Your task to perform on an android device: Open the Play Movies app and select the watchlist tab. Image 0: 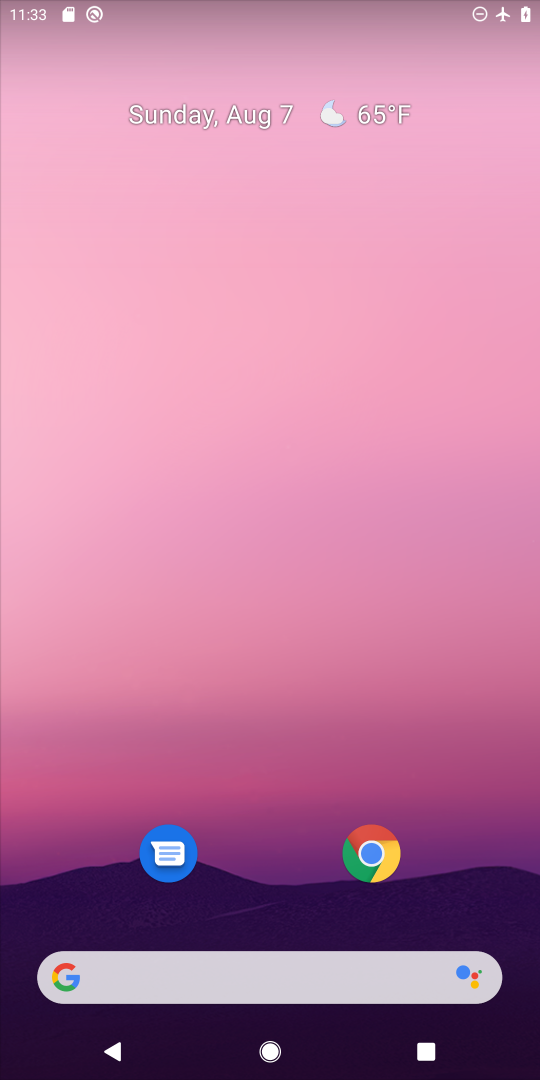
Step 0: drag from (290, 902) to (323, 58)
Your task to perform on an android device: Open the Play Movies app and select the watchlist tab. Image 1: 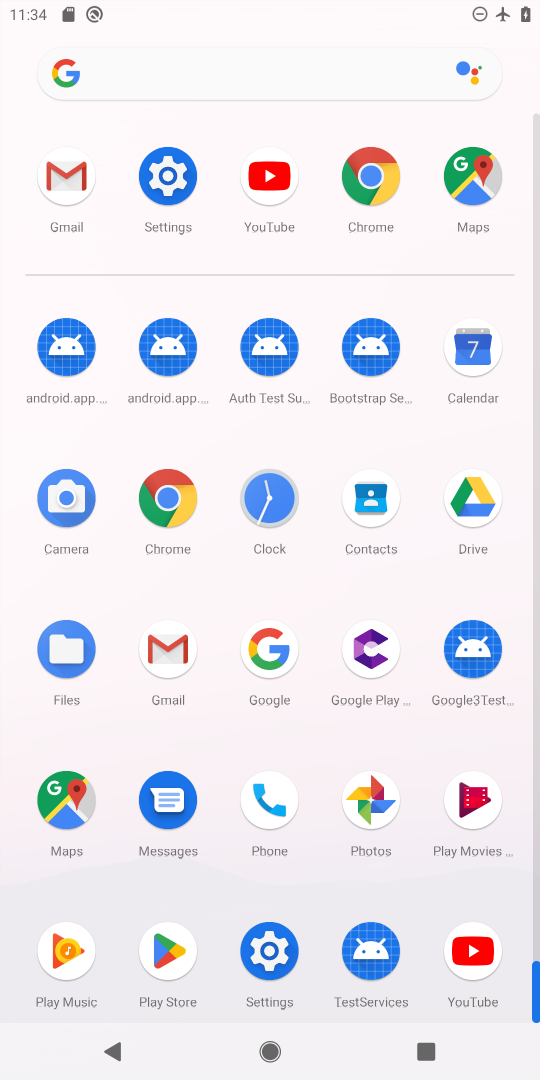
Step 1: click (490, 800)
Your task to perform on an android device: Open the Play Movies app and select the watchlist tab. Image 2: 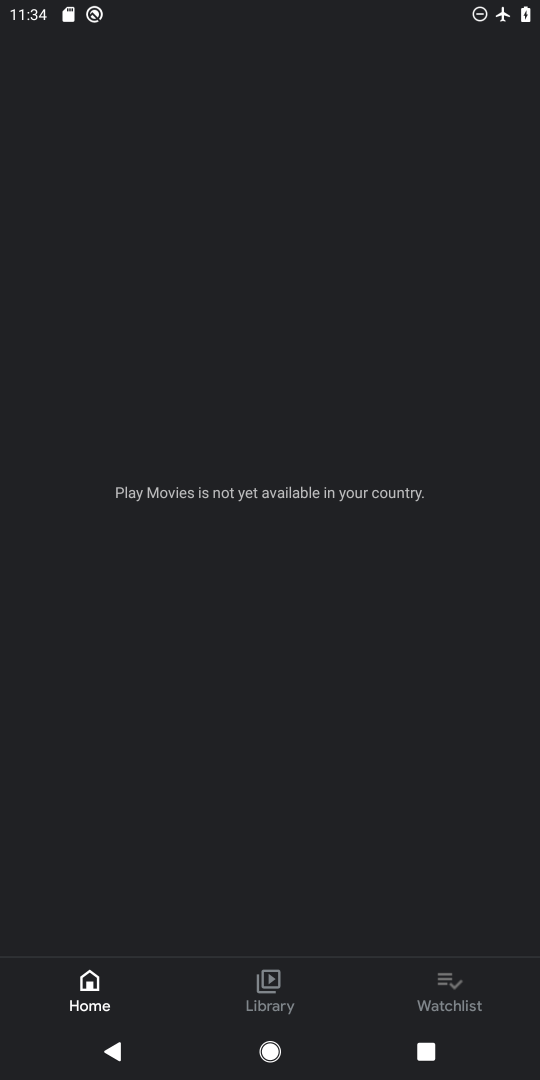
Step 2: click (452, 983)
Your task to perform on an android device: Open the Play Movies app and select the watchlist tab. Image 3: 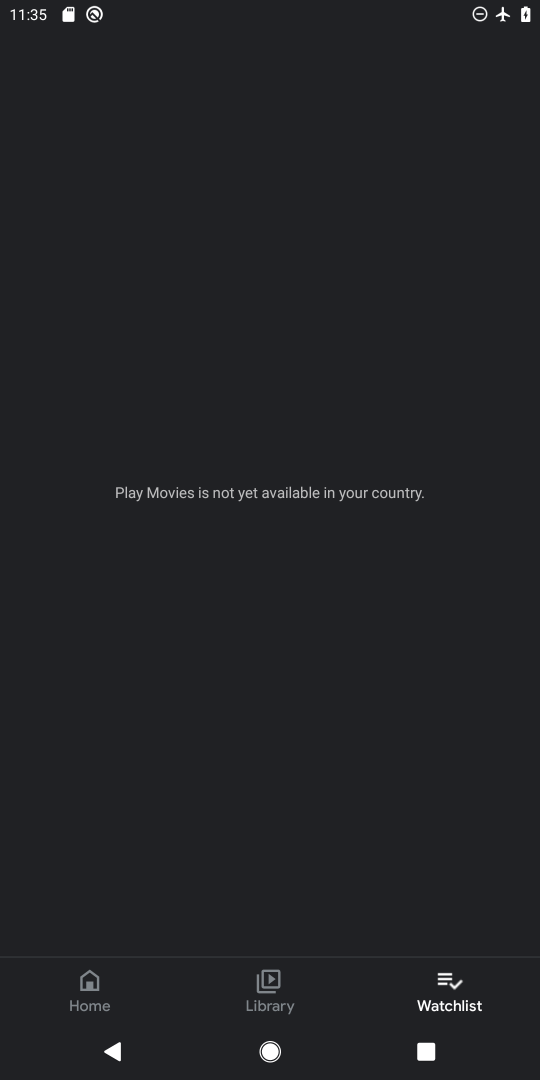
Step 3: task complete